Your task to perform on an android device: check storage Image 0: 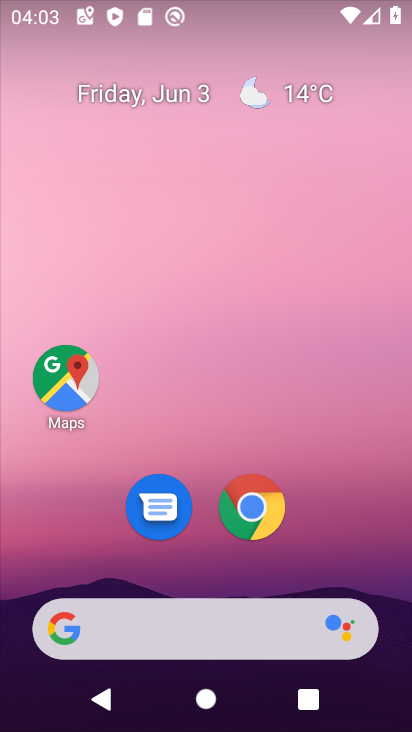
Step 0: press home button
Your task to perform on an android device: check storage Image 1: 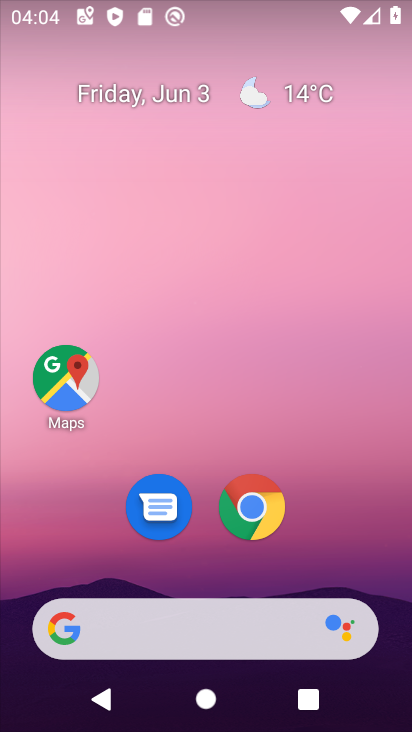
Step 1: drag from (225, 535) to (203, 180)
Your task to perform on an android device: check storage Image 2: 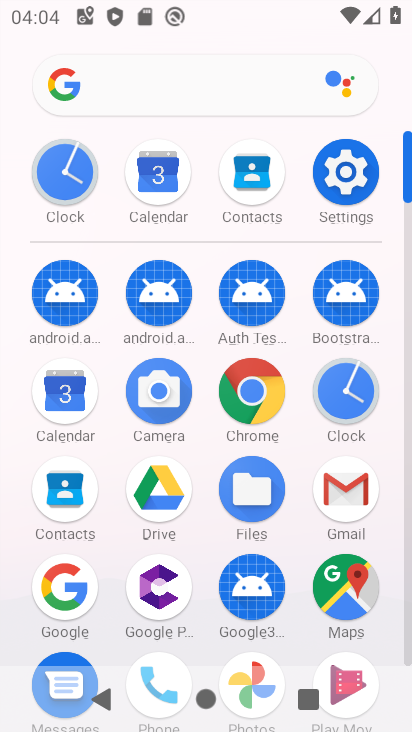
Step 2: click (348, 185)
Your task to perform on an android device: check storage Image 3: 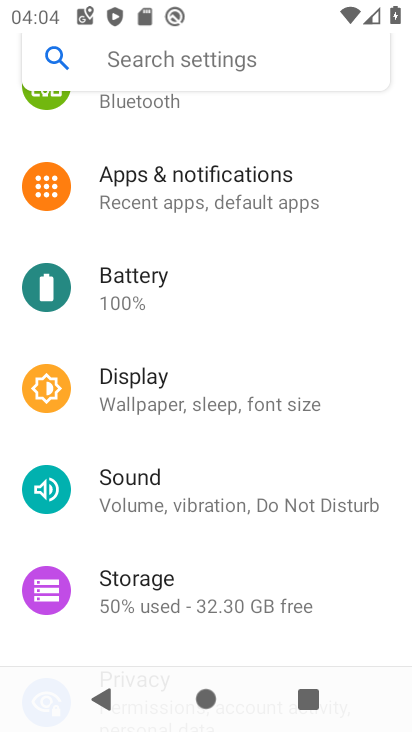
Step 3: drag from (246, 471) to (248, 184)
Your task to perform on an android device: check storage Image 4: 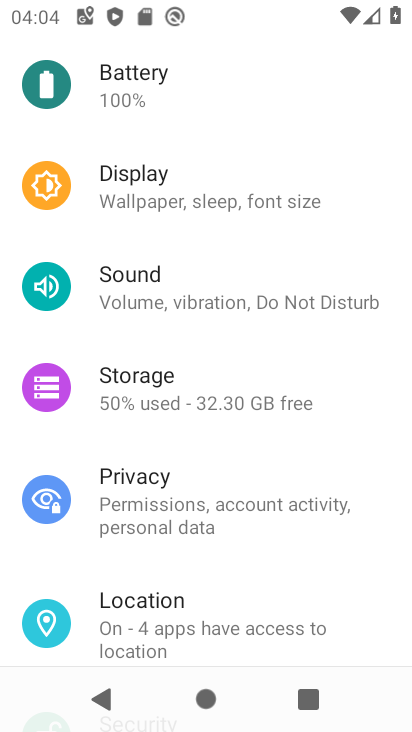
Step 4: click (140, 377)
Your task to perform on an android device: check storage Image 5: 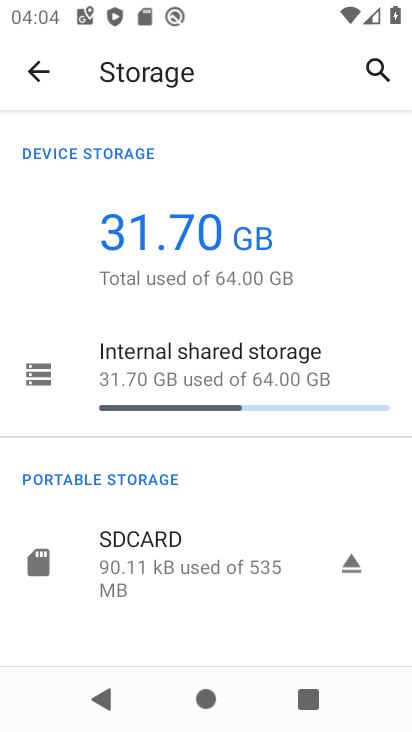
Step 5: task complete